Your task to perform on an android device: What is the recent news? Image 0: 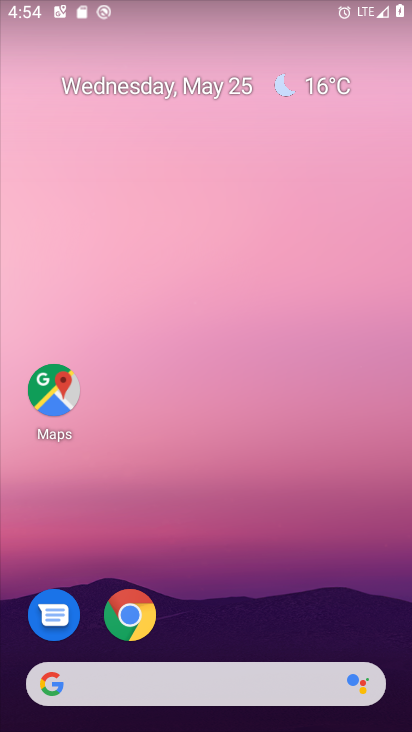
Step 0: drag from (308, 592) to (218, 62)
Your task to perform on an android device: What is the recent news? Image 1: 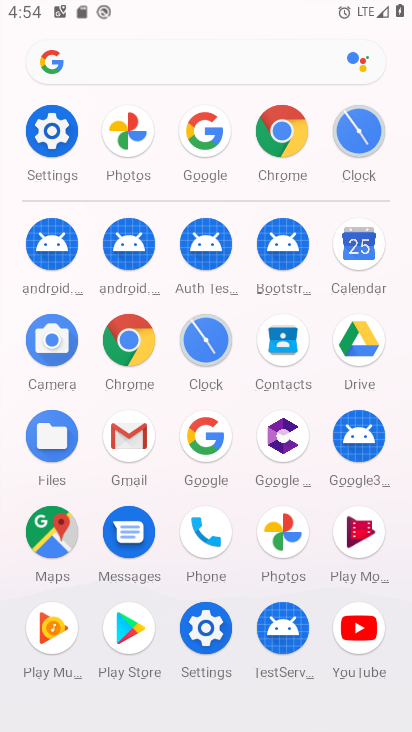
Step 1: click (195, 435)
Your task to perform on an android device: What is the recent news? Image 2: 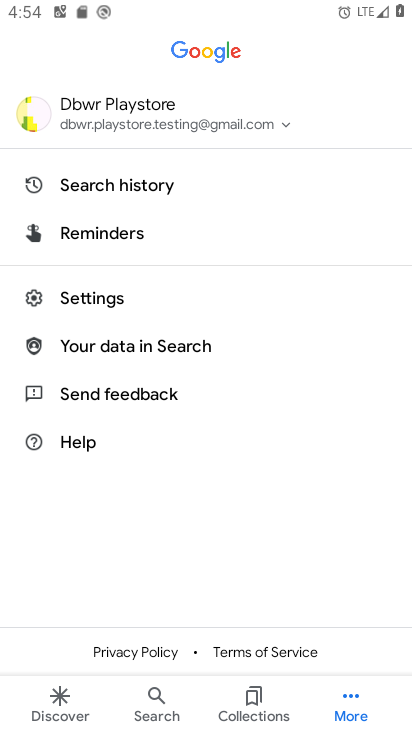
Step 2: click (58, 701)
Your task to perform on an android device: What is the recent news? Image 3: 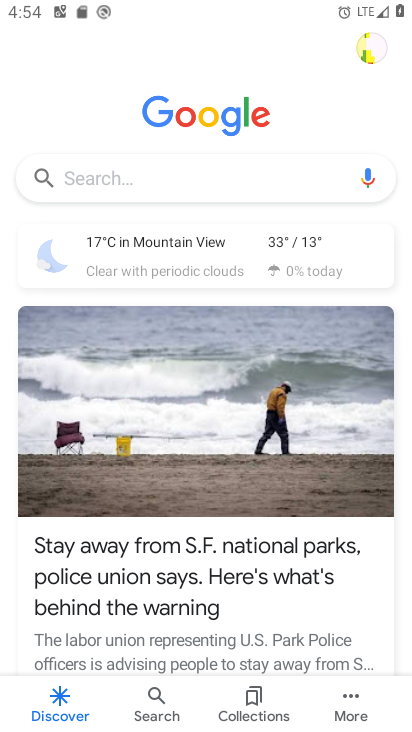
Step 3: click (198, 181)
Your task to perform on an android device: What is the recent news? Image 4: 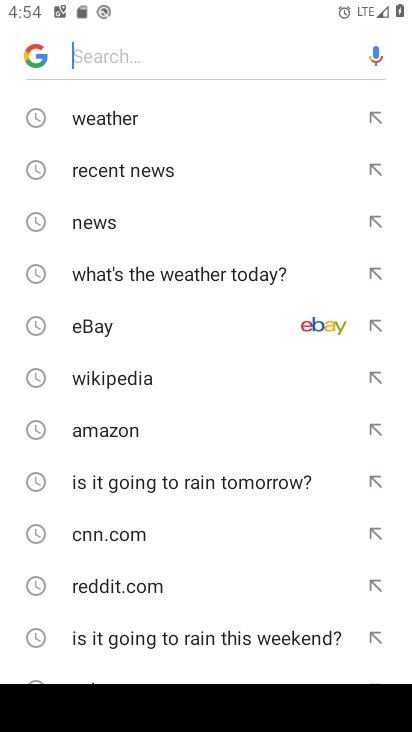
Step 4: click (170, 154)
Your task to perform on an android device: What is the recent news? Image 5: 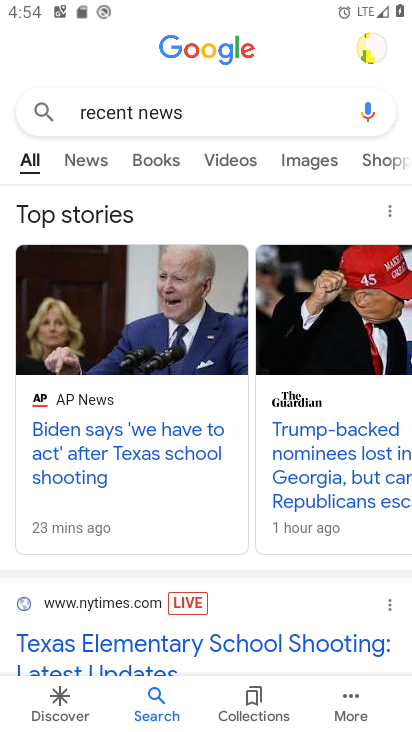
Step 5: task complete